Your task to perform on an android device: remove spam from my inbox in the gmail app Image 0: 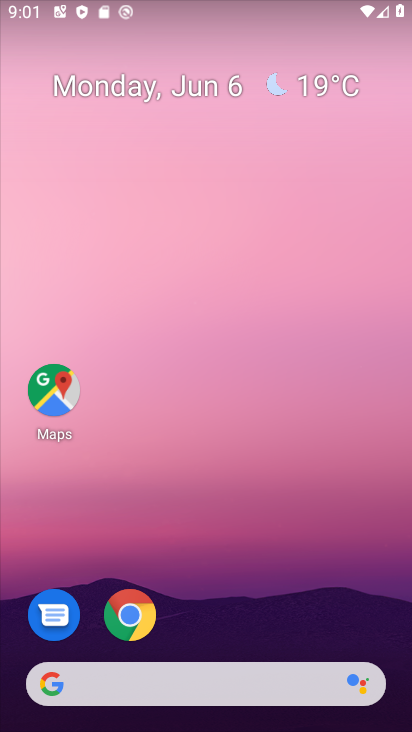
Step 0: drag from (205, 645) to (64, 174)
Your task to perform on an android device: remove spam from my inbox in the gmail app Image 1: 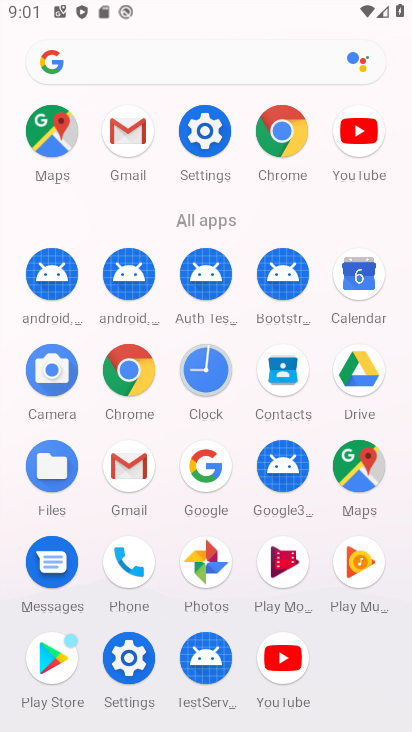
Step 1: click (121, 462)
Your task to perform on an android device: remove spam from my inbox in the gmail app Image 2: 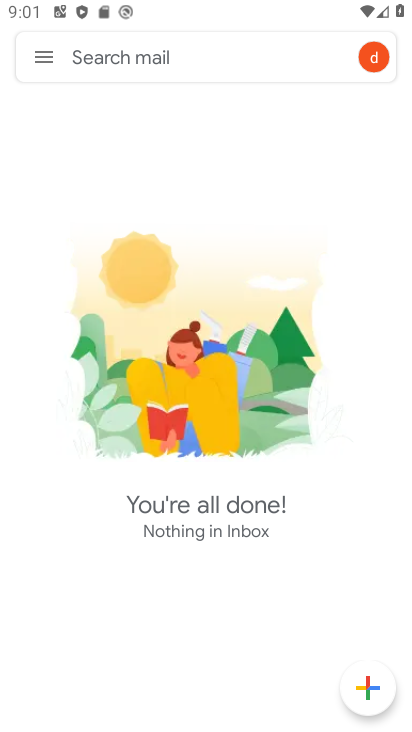
Step 2: click (40, 51)
Your task to perform on an android device: remove spam from my inbox in the gmail app Image 3: 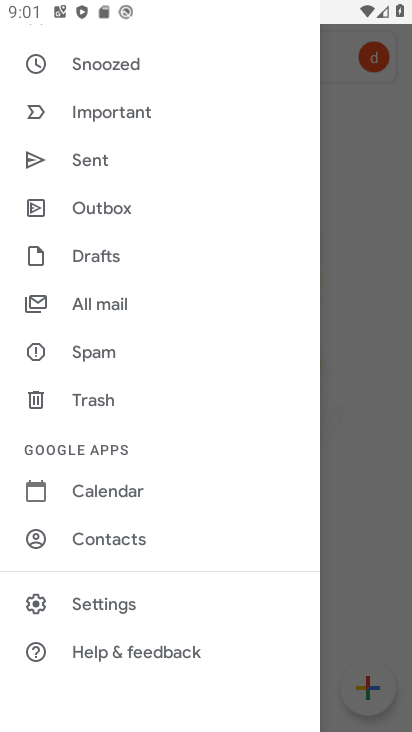
Step 3: drag from (69, 181) to (55, 474)
Your task to perform on an android device: remove spam from my inbox in the gmail app Image 4: 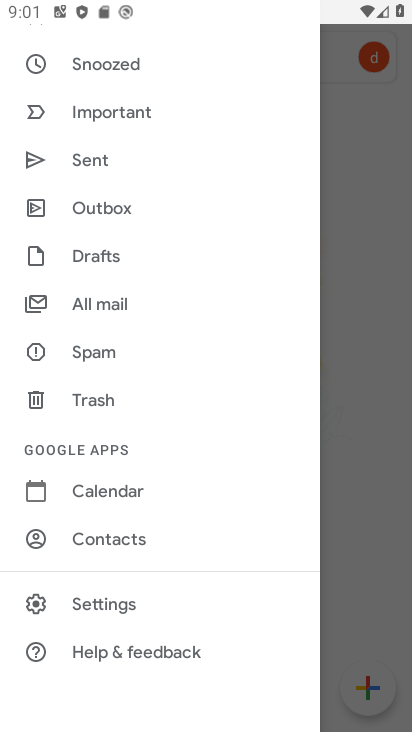
Step 4: click (81, 360)
Your task to perform on an android device: remove spam from my inbox in the gmail app Image 5: 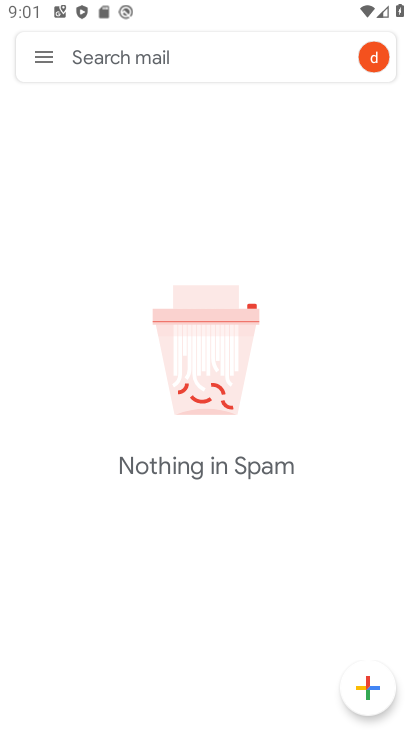
Step 5: task complete